Your task to perform on an android device: find which apps use the phone's location Image 0: 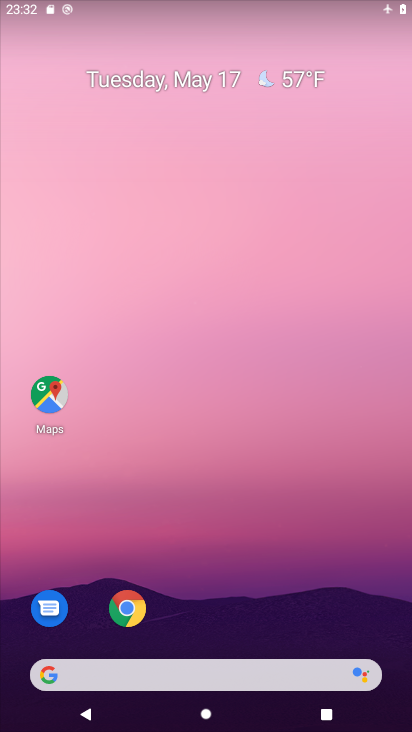
Step 0: drag from (197, 634) to (259, 19)
Your task to perform on an android device: find which apps use the phone's location Image 1: 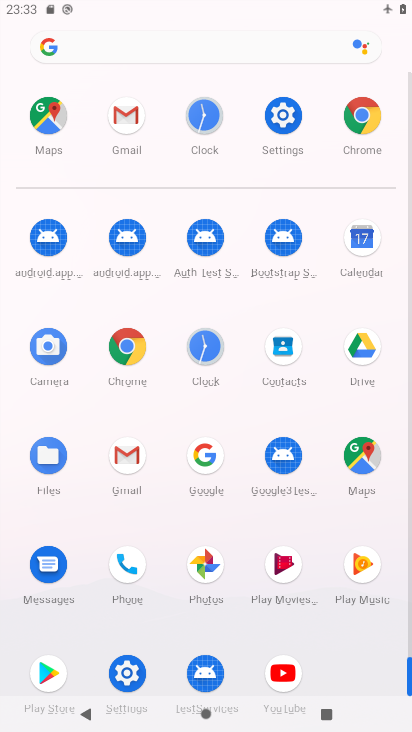
Step 1: click (283, 117)
Your task to perform on an android device: find which apps use the phone's location Image 2: 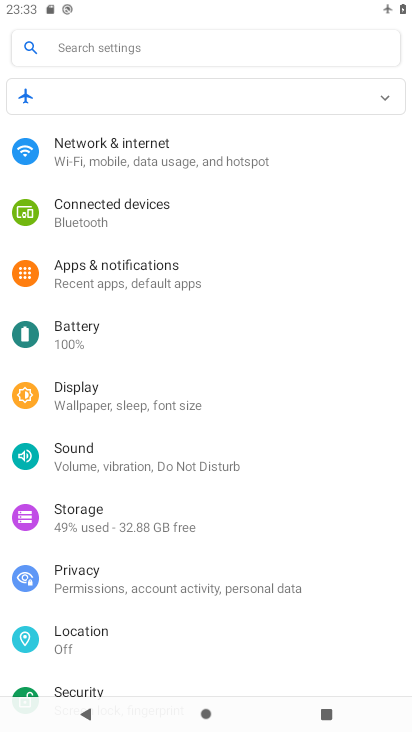
Step 2: click (100, 640)
Your task to perform on an android device: find which apps use the phone's location Image 3: 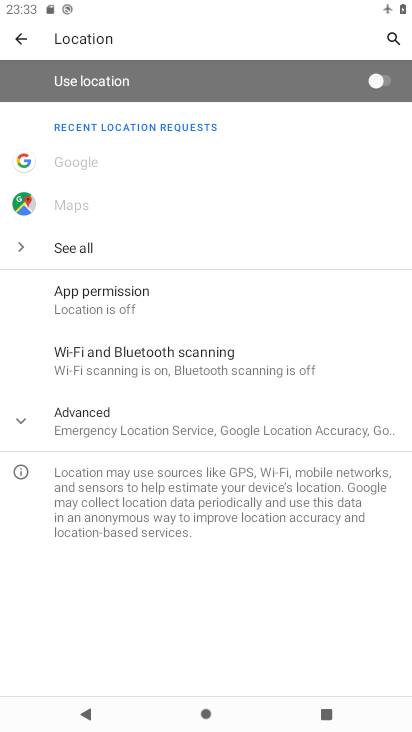
Step 3: click (103, 311)
Your task to perform on an android device: find which apps use the phone's location Image 4: 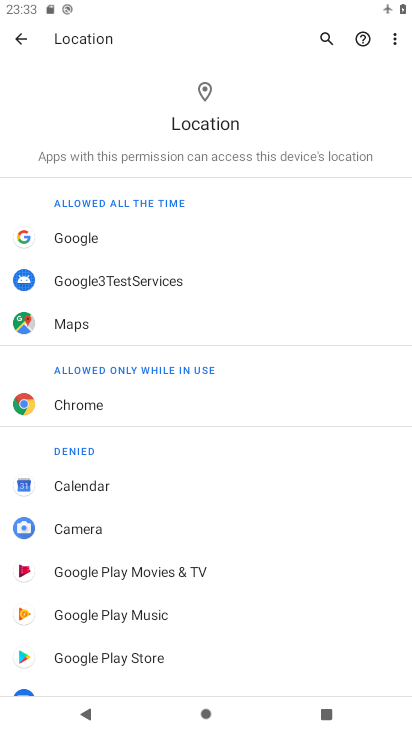
Step 4: task complete